Your task to perform on an android device: stop showing notifications on the lock screen Image 0: 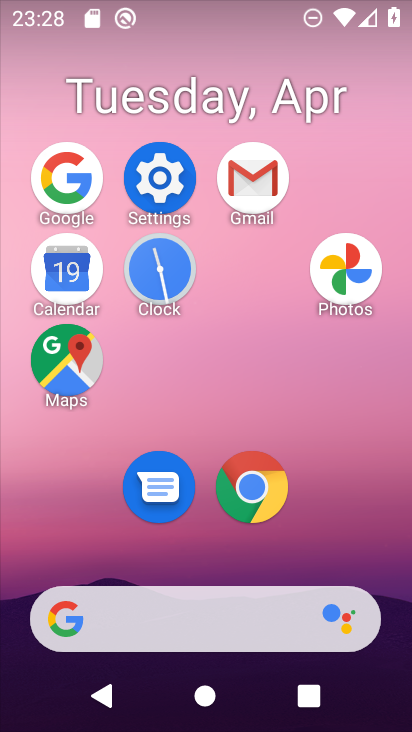
Step 0: click (176, 178)
Your task to perform on an android device: stop showing notifications on the lock screen Image 1: 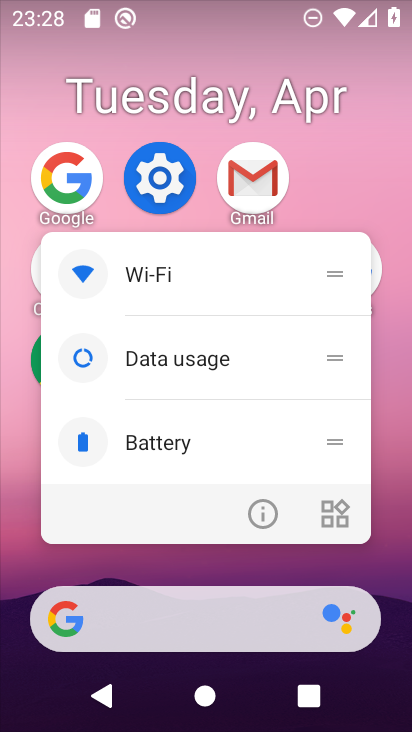
Step 1: click (176, 178)
Your task to perform on an android device: stop showing notifications on the lock screen Image 2: 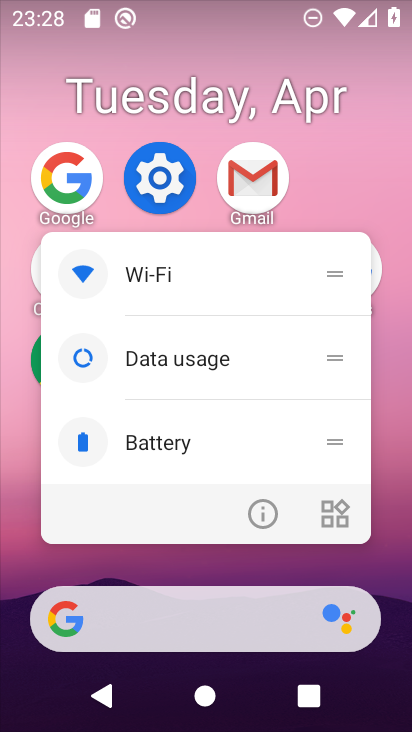
Step 2: click (176, 178)
Your task to perform on an android device: stop showing notifications on the lock screen Image 3: 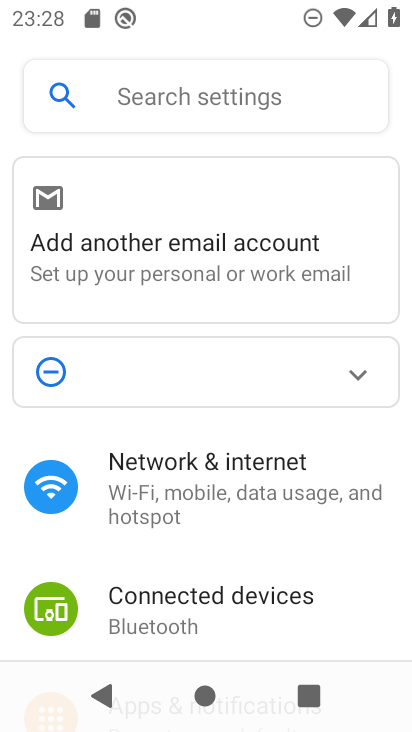
Step 3: drag from (220, 358) to (267, 88)
Your task to perform on an android device: stop showing notifications on the lock screen Image 4: 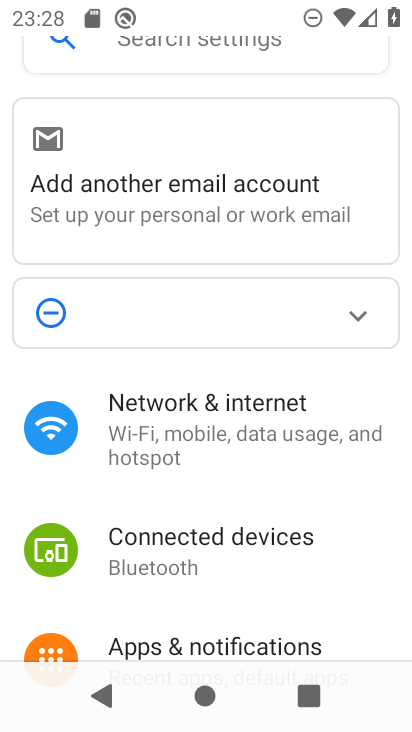
Step 4: drag from (241, 560) to (290, 199)
Your task to perform on an android device: stop showing notifications on the lock screen Image 5: 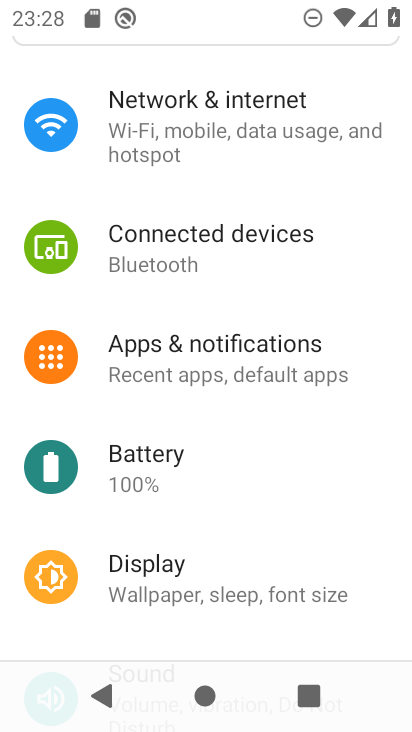
Step 5: click (253, 360)
Your task to perform on an android device: stop showing notifications on the lock screen Image 6: 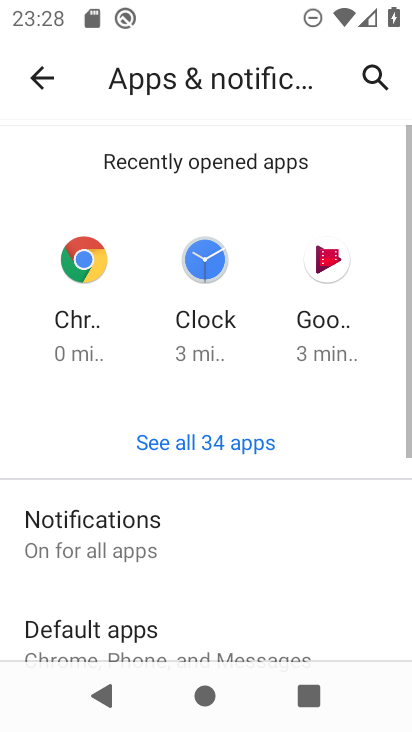
Step 6: drag from (201, 555) to (261, 92)
Your task to perform on an android device: stop showing notifications on the lock screen Image 7: 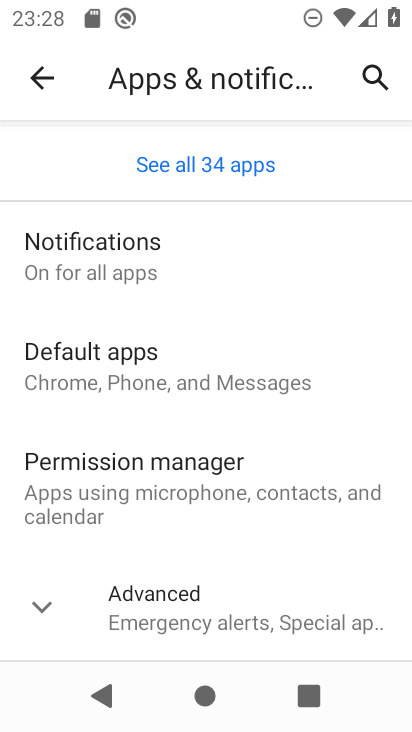
Step 7: click (235, 593)
Your task to perform on an android device: stop showing notifications on the lock screen Image 8: 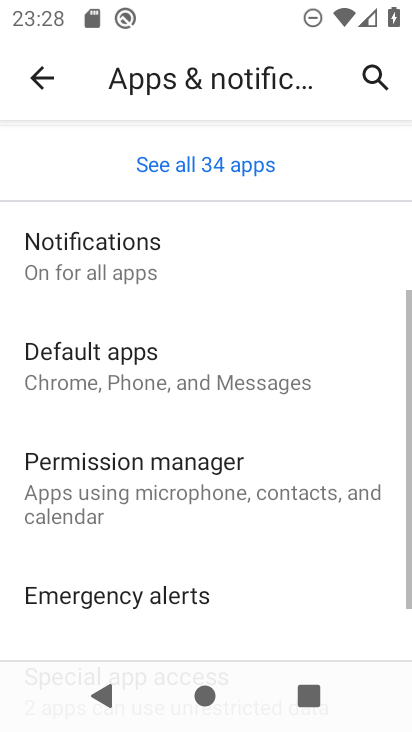
Step 8: drag from (233, 579) to (253, 163)
Your task to perform on an android device: stop showing notifications on the lock screen Image 9: 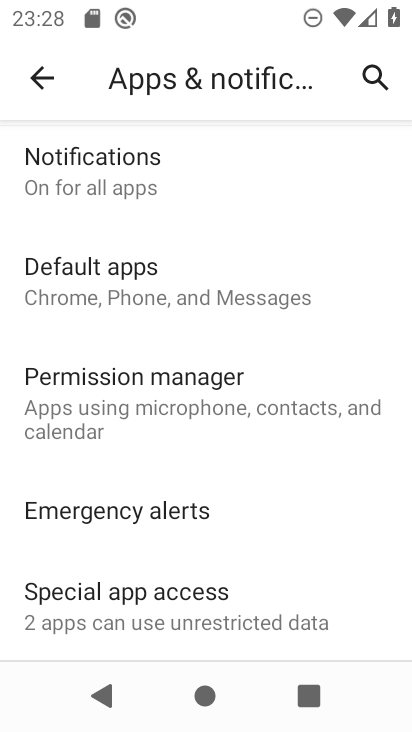
Step 9: drag from (250, 179) to (275, 582)
Your task to perform on an android device: stop showing notifications on the lock screen Image 10: 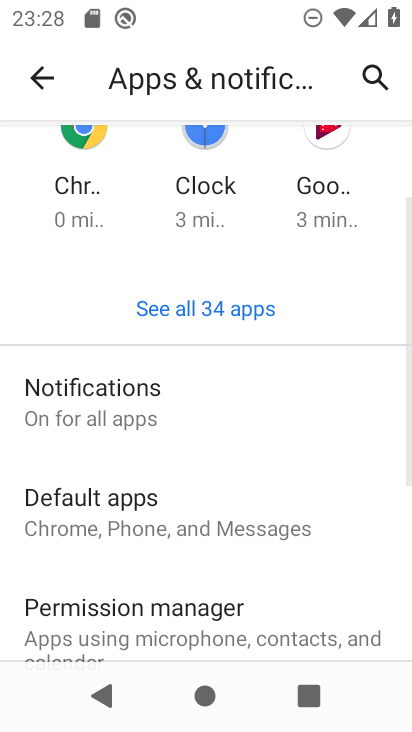
Step 10: click (214, 401)
Your task to perform on an android device: stop showing notifications on the lock screen Image 11: 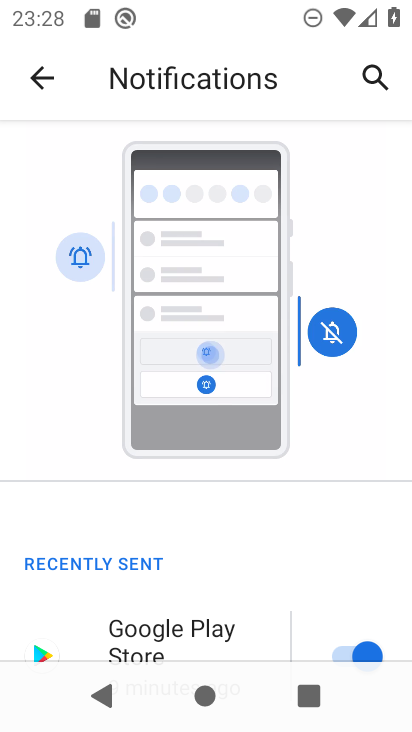
Step 11: drag from (225, 601) to (247, 182)
Your task to perform on an android device: stop showing notifications on the lock screen Image 12: 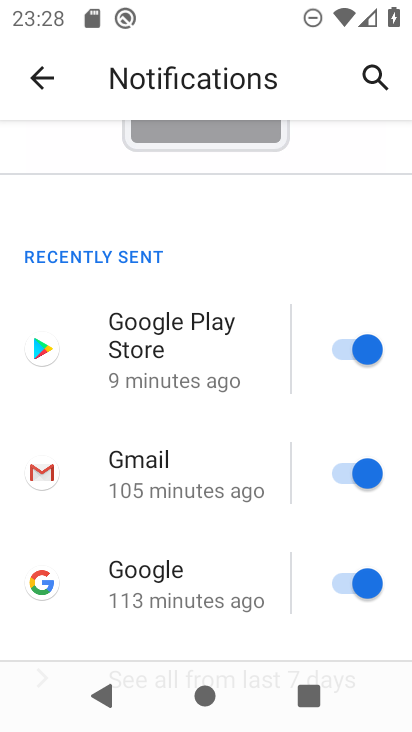
Step 12: drag from (227, 238) to (225, 142)
Your task to perform on an android device: stop showing notifications on the lock screen Image 13: 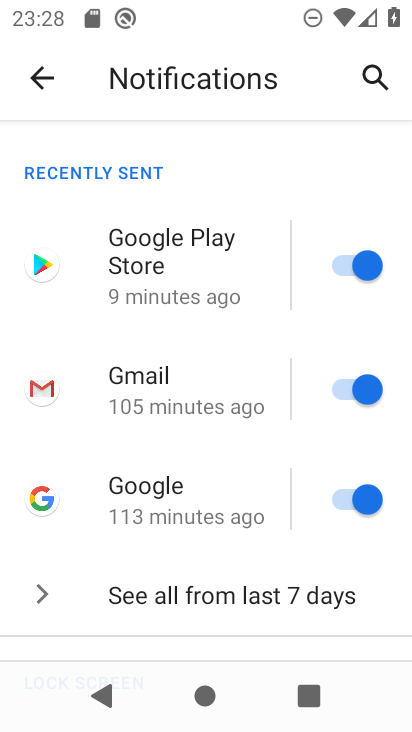
Step 13: drag from (208, 576) to (273, 140)
Your task to perform on an android device: stop showing notifications on the lock screen Image 14: 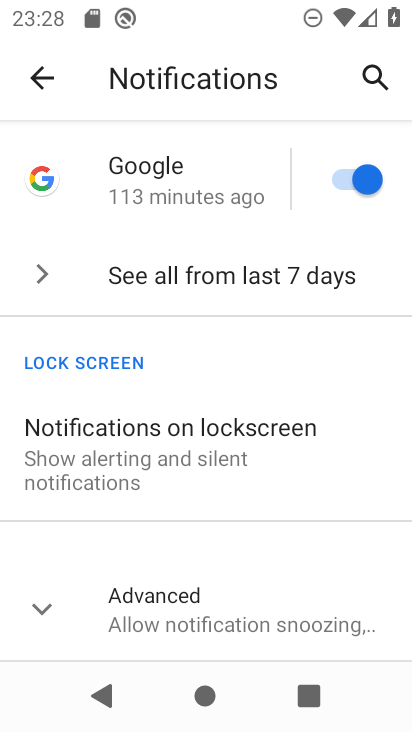
Step 14: click (214, 445)
Your task to perform on an android device: stop showing notifications on the lock screen Image 15: 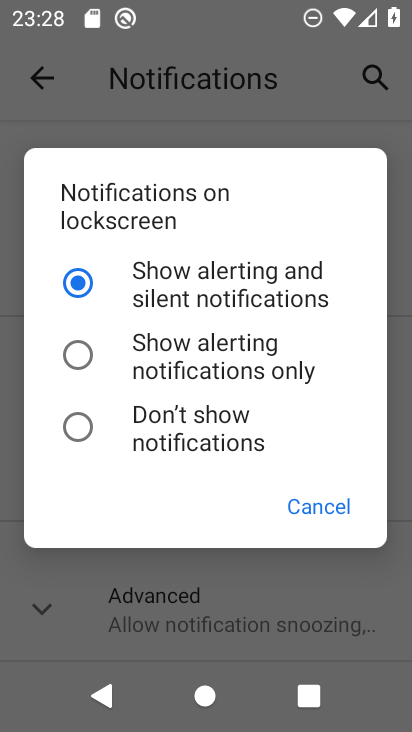
Step 15: click (172, 427)
Your task to perform on an android device: stop showing notifications on the lock screen Image 16: 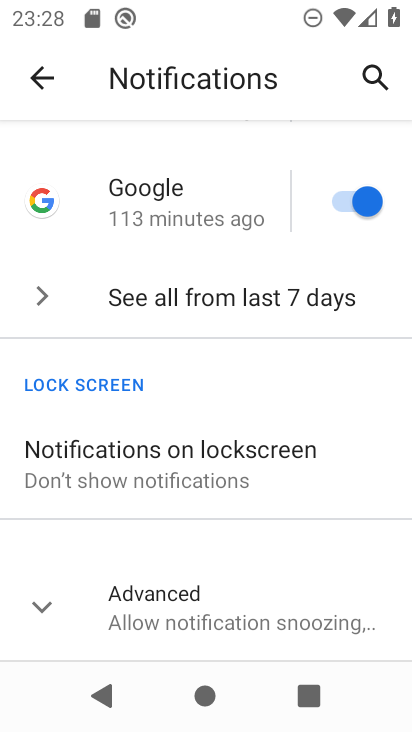
Step 16: task complete